Your task to perform on an android device: See recent photos Image 0: 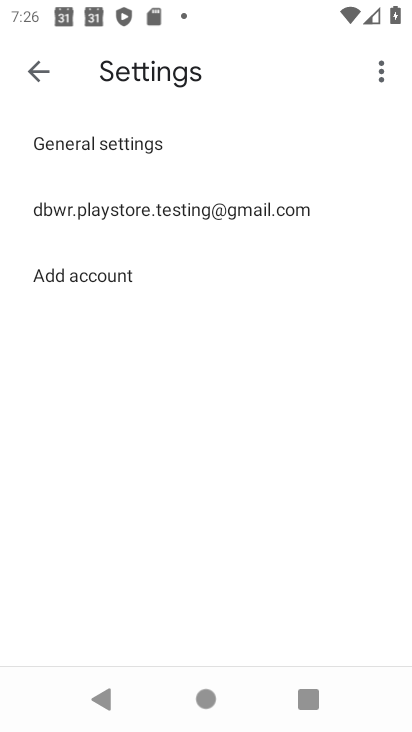
Step 0: press home button
Your task to perform on an android device: See recent photos Image 1: 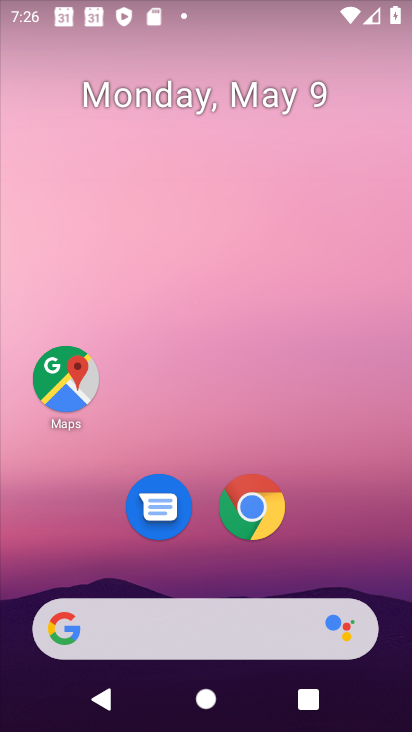
Step 1: drag from (293, 665) to (256, 173)
Your task to perform on an android device: See recent photos Image 2: 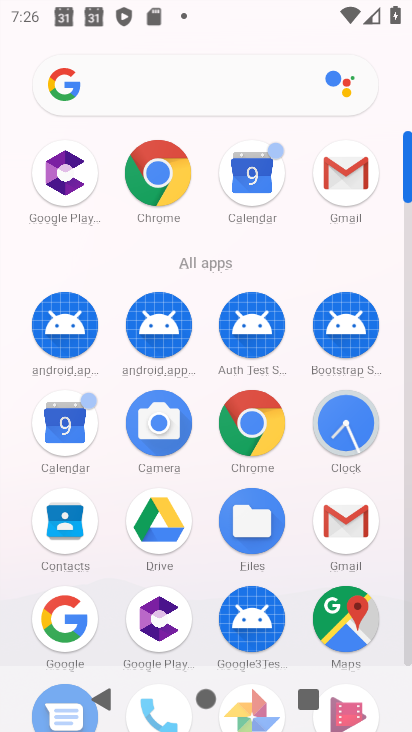
Step 2: drag from (204, 569) to (217, 462)
Your task to perform on an android device: See recent photos Image 3: 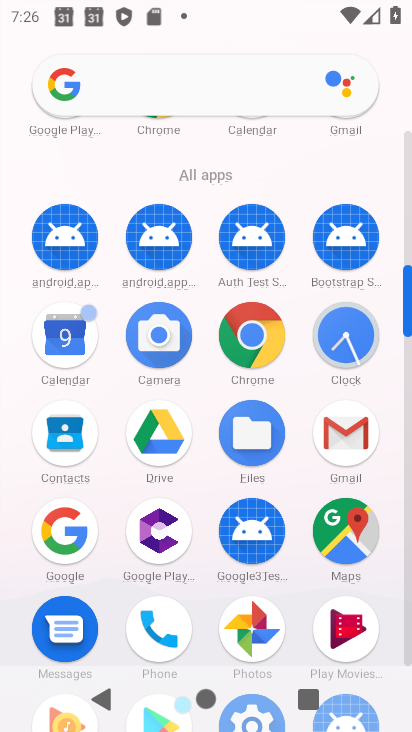
Step 3: click (247, 616)
Your task to perform on an android device: See recent photos Image 4: 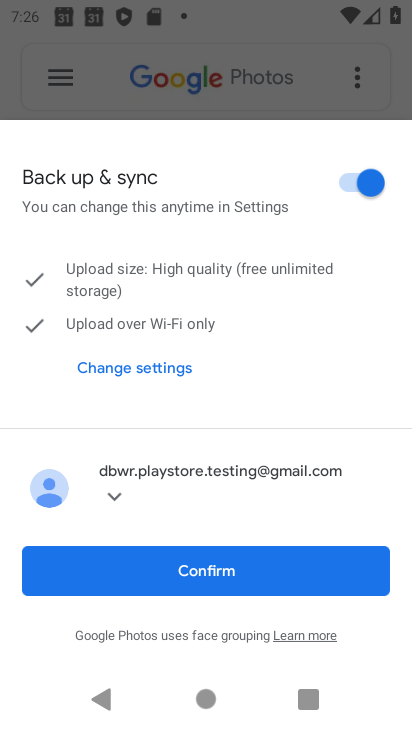
Step 4: click (183, 564)
Your task to perform on an android device: See recent photos Image 5: 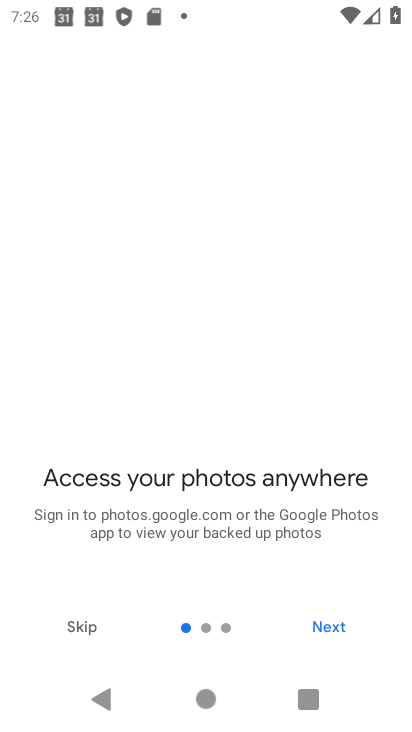
Step 5: click (331, 619)
Your task to perform on an android device: See recent photos Image 6: 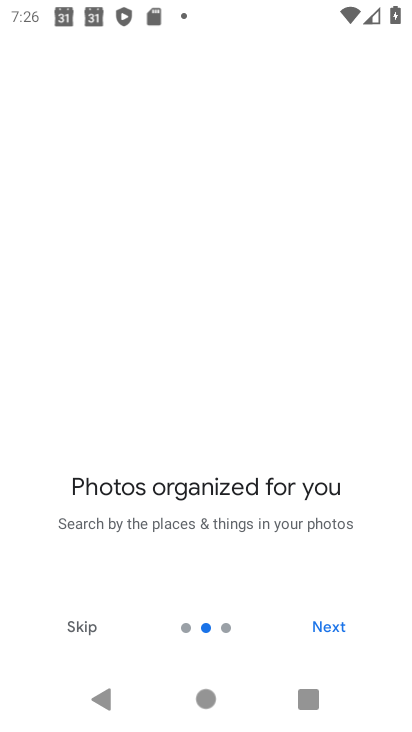
Step 6: click (306, 625)
Your task to perform on an android device: See recent photos Image 7: 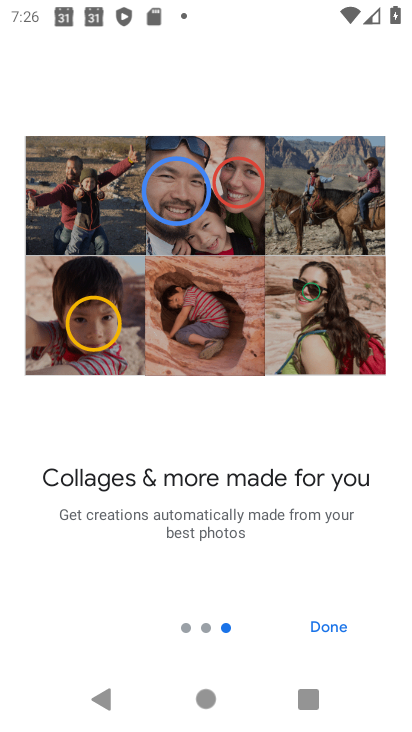
Step 7: click (317, 621)
Your task to perform on an android device: See recent photos Image 8: 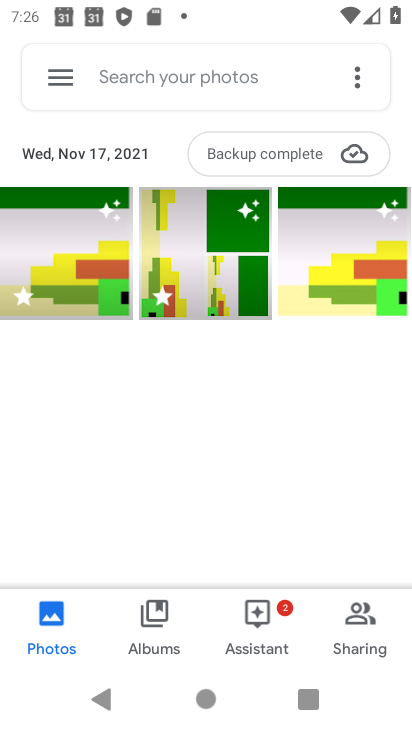
Step 8: task complete